Your task to perform on an android device: change keyboard looks Image 0: 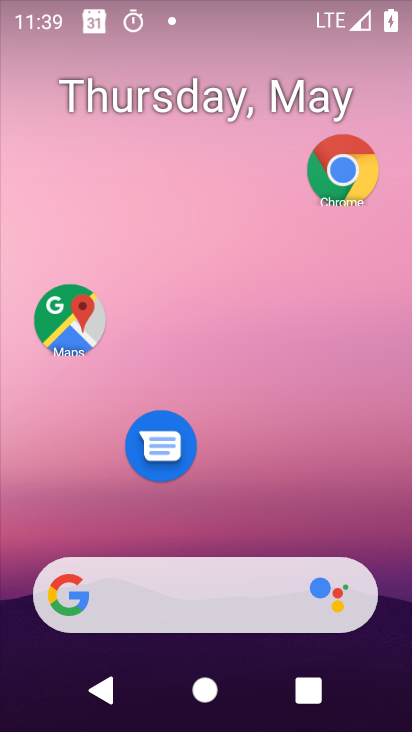
Step 0: drag from (285, 538) to (327, 28)
Your task to perform on an android device: change keyboard looks Image 1: 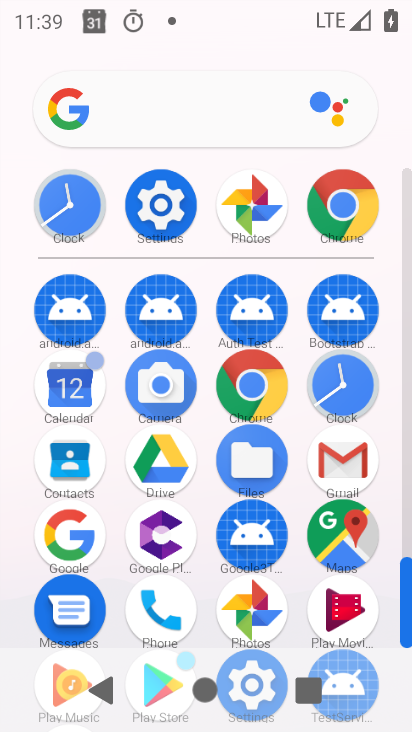
Step 1: click (159, 215)
Your task to perform on an android device: change keyboard looks Image 2: 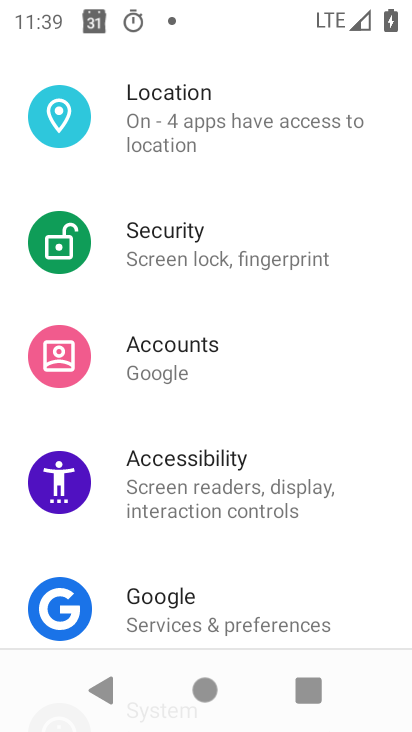
Step 2: drag from (230, 194) to (237, 647)
Your task to perform on an android device: change keyboard looks Image 3: 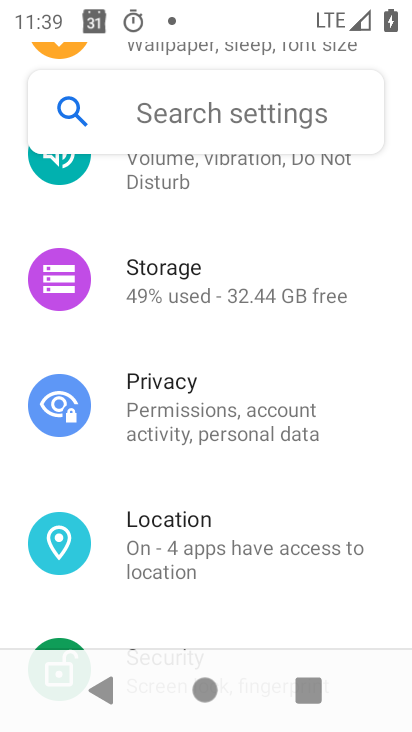
Step 3: drag from (244, 214) to (309, 50)
Your task to perform on an android device: change keyboard looks Image 4: 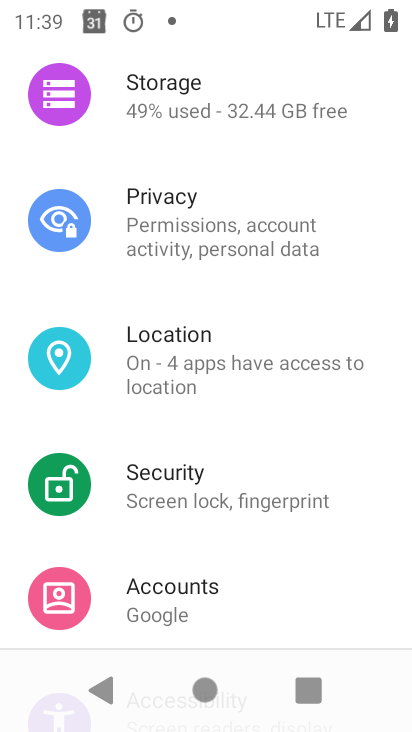
Step 4: drag from (259, 622) to (292, 61)
Your task to perform on an android device: change keyboard looks Image 5: 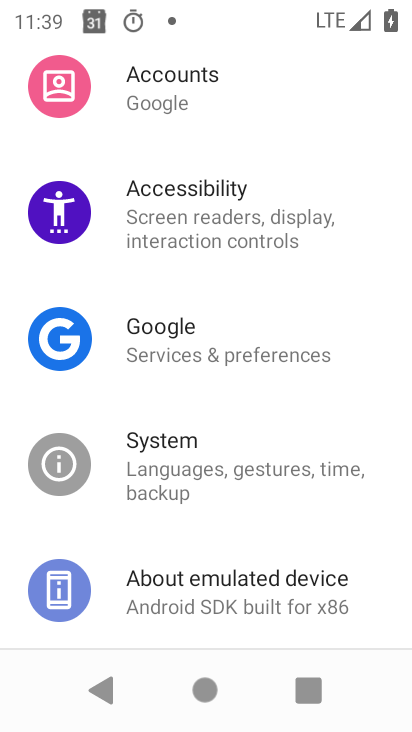
Step 5: click (238, 472)
Your task to perform on an android device: change keyboard looks Image 6: 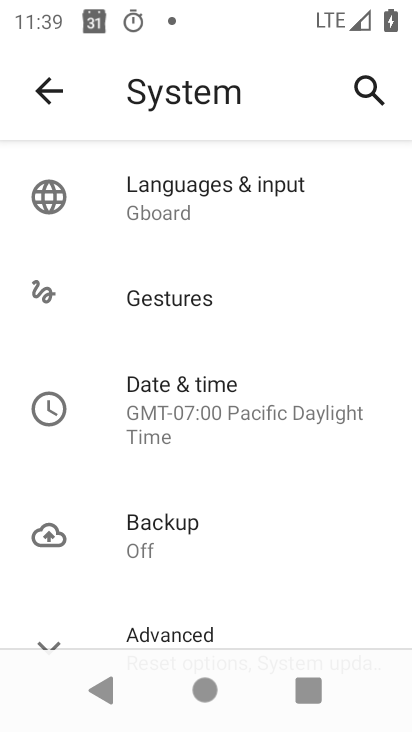
Step 6: click (216, 209)
Your task to perform on an android device: change keyboard looks Image 7: 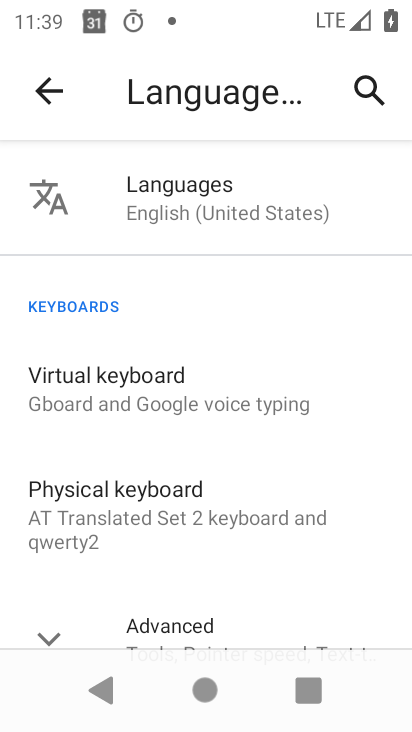
Step 7: click (216, 397)
Your task to perform on an android device: change keyboard looks Image 8: 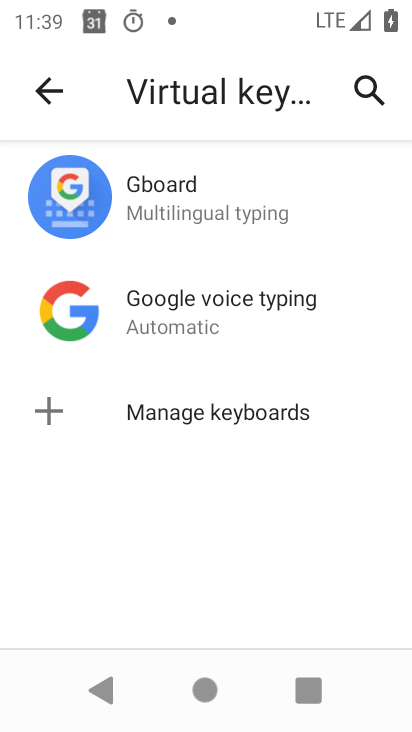
Step 8: click (233, 202)
Your task to perform on an android device: change keyboard looks Image 9: 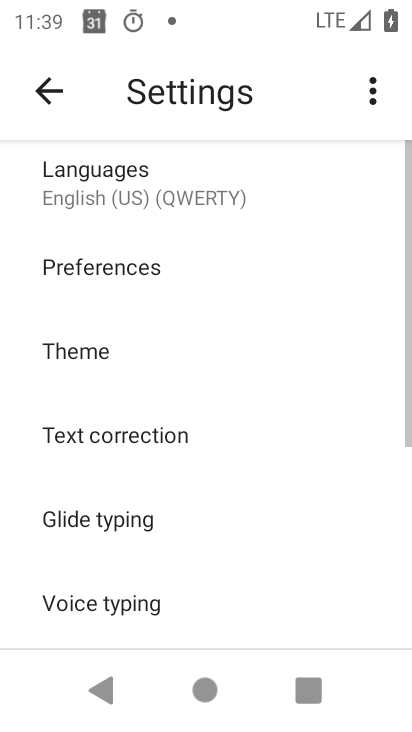
Step 9: click (120, 352)
Your task to perform on an android device: change keyboard looks Image 10: 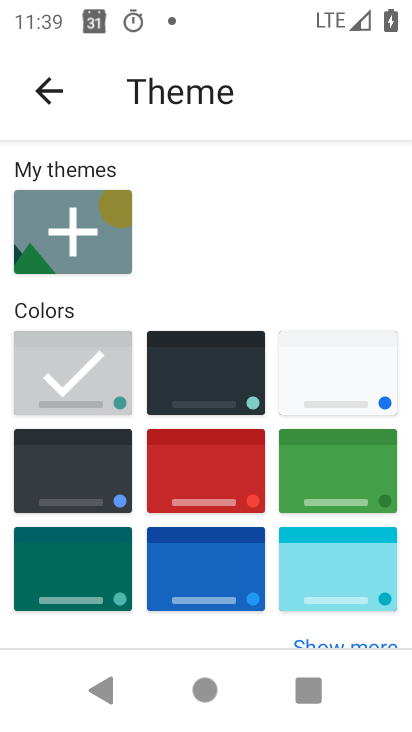
Step 10: click (292, 465)
Your task to perform on an android device: change keyboard looks Image 11: 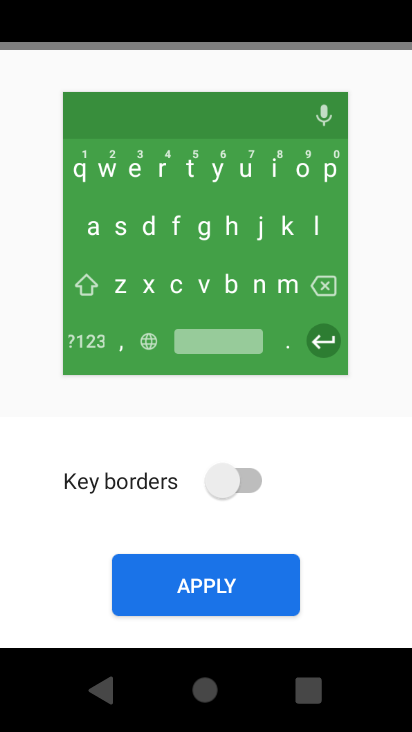
Step 11: click (211, 587)
Your task to perform on an android device: change keyboard looks Image 12: 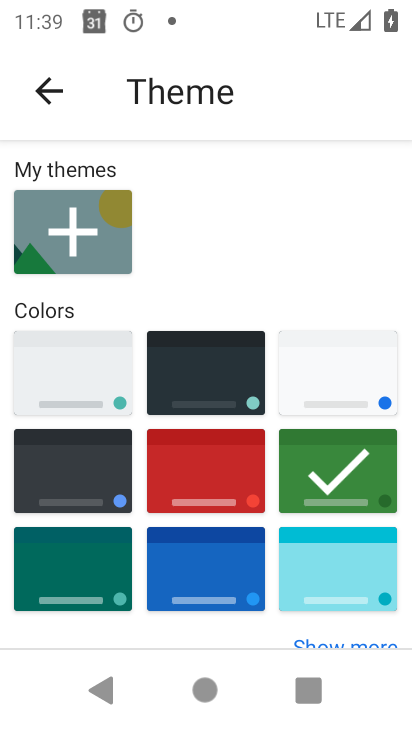
Step 12: task complete